Your task to perform on an android device: clear all cookies in the chrome app Image 0: 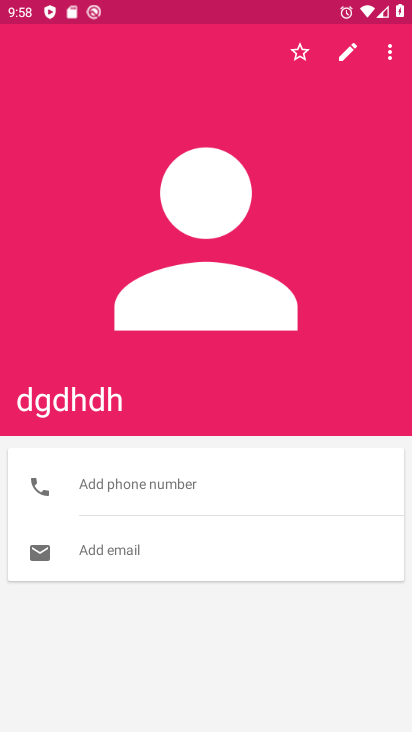
Step 0: press home button
Your task to perform on an android device: clear all cookies in the chrome app Image 1: 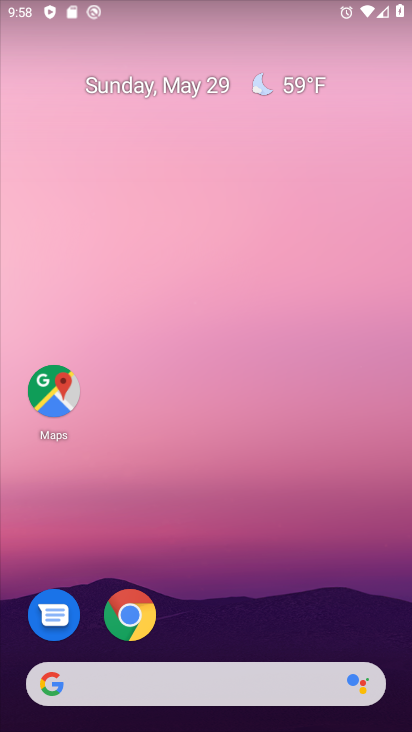
Step 1: click (133, 615)
Your task to perform on an android device: clear all cookies in the chrome app Image 2: 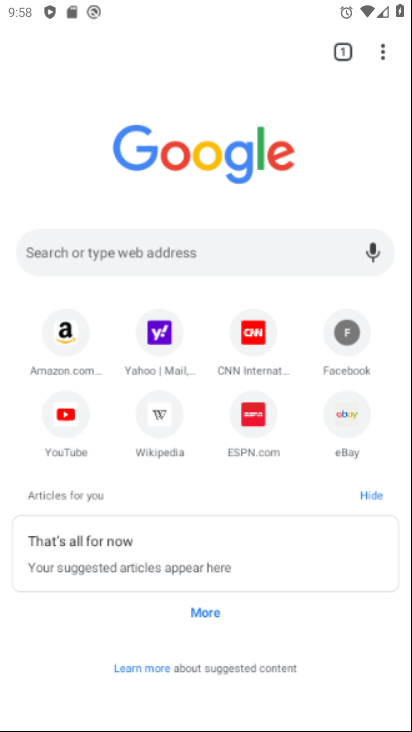
Step 2: click (370, 51)
Your task to perform on an android device: clear all cookies in the chrome app Image 3: 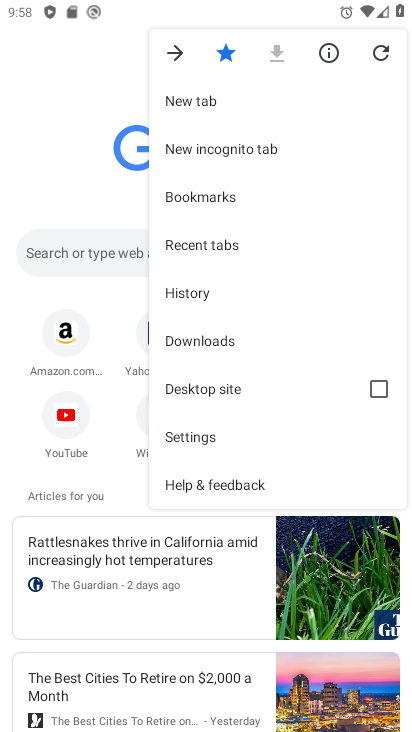
Step 3: click (206, 442)
Your task to perform on an android device: clear all cookies in the chrome app Image 4: 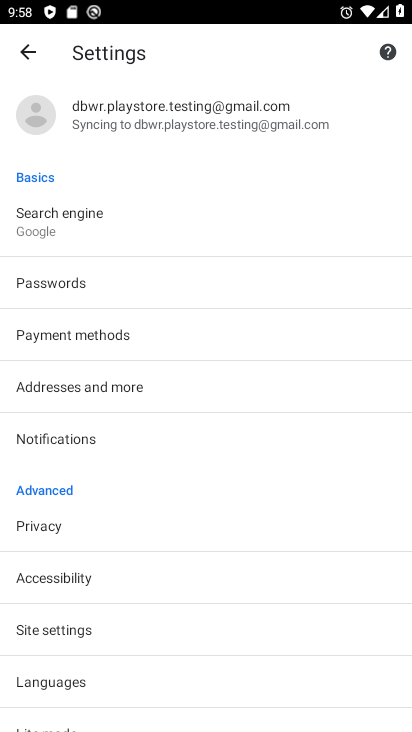
Step 4: drag from (75, 630) to (135, 332)
Your task to perform on an android device: clear all cookies in the chrome app Image 5: 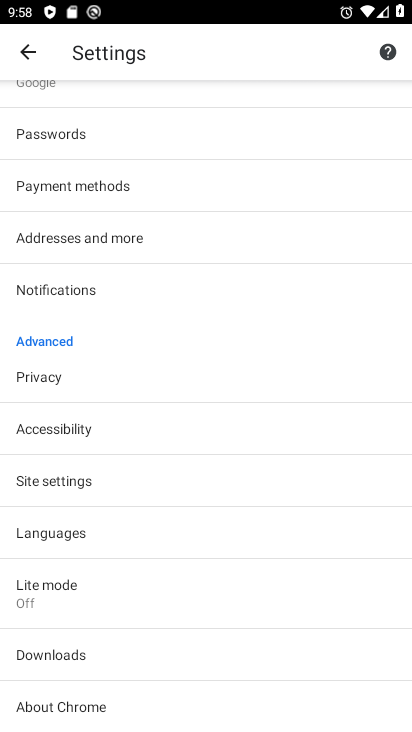
Step 5: press back button
Your task to perform on an android device: clear all cookies in the chrome app Image 6: 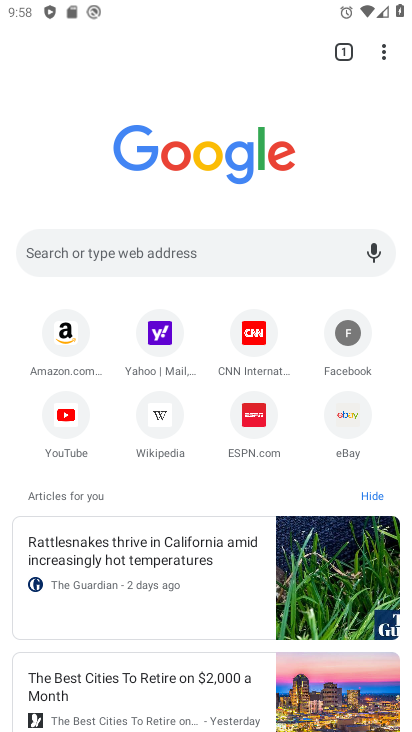
Step 6: click (374, 51)
Your task to perform on an android device: clear all cookies in the chrome app Image 7: 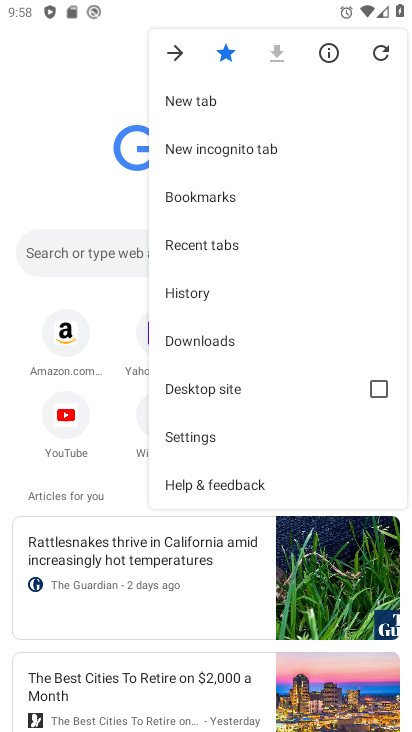
Step 7: click (227, 308)
Your task to perform on an android device: clear all cookies in the chrome app Image 8: 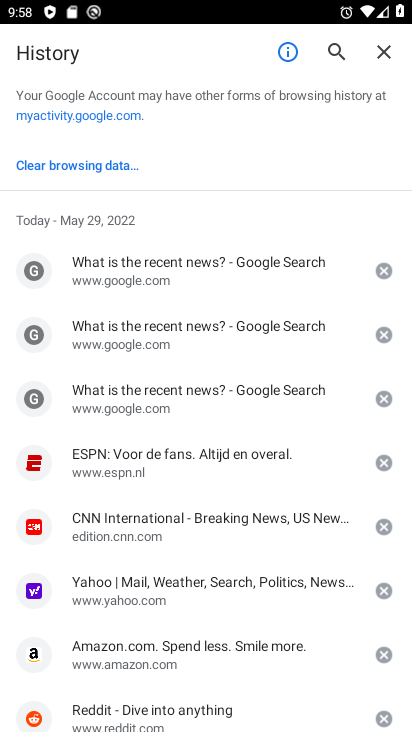
Step 8: click (106, 157)
Your task to perform on an android device: clear all cookies in the chrome app Image 9: 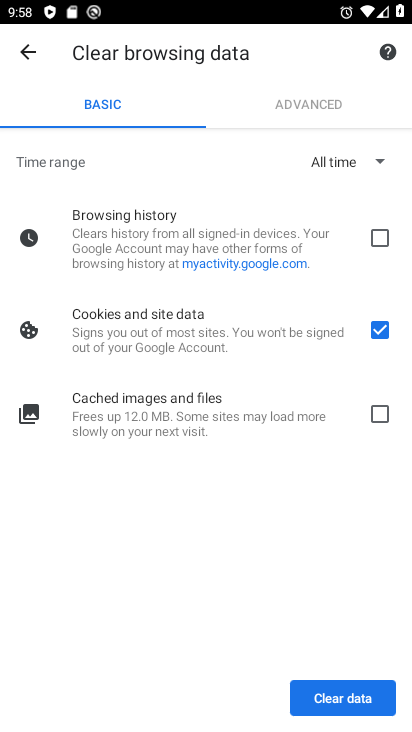
Step 9: click (298, 694)
Your task to perform on an android device: clear all cookies in the chrome app Image 10: 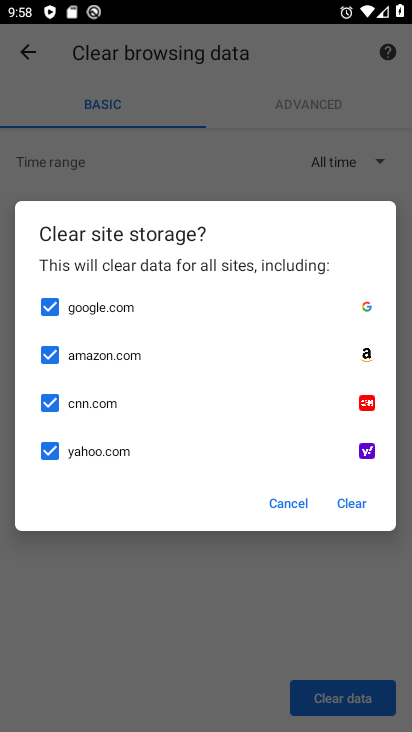
Step 10: click (354, 503)
Your task to perform on an android device: clear all cookies in the chrome app Image 11: 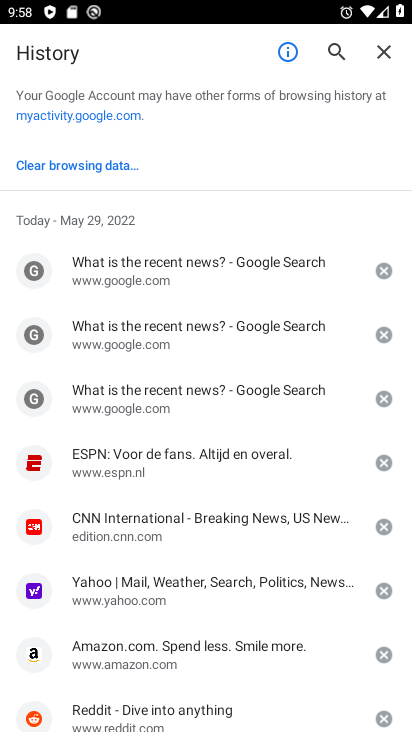
Step 11: task complete